Your task to perform on an android device: open chrome privacy settings Image 0: 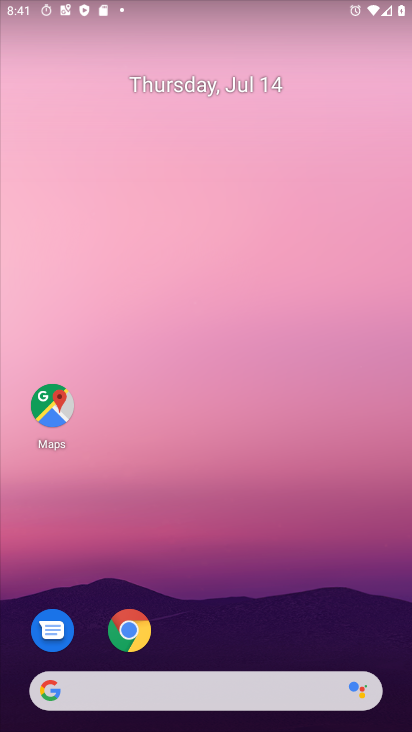
Step 0: drag from (252, 690) to (255, 133)
Your task to perform on an android device: open chrome privacy settings Image 1: 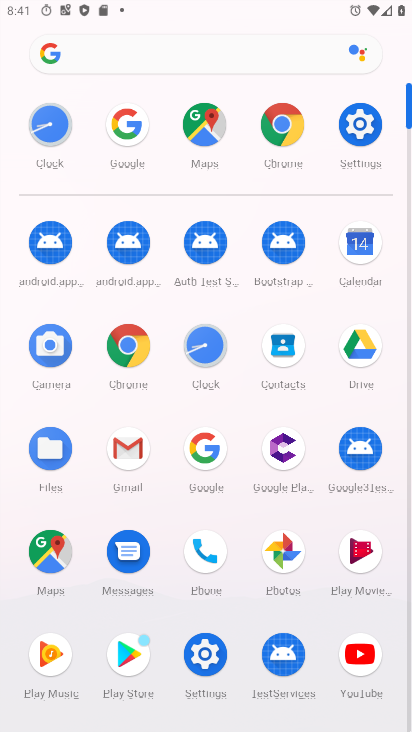
Step 1: click (134, 345)
Your task to perform on an android device: open chrome privacy settings Image 2: 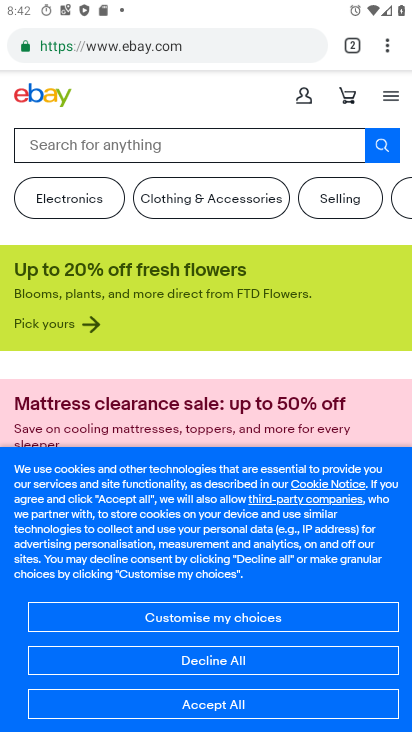
Step 2: click (389, 43)
Your task to perform on an android device: open chrome privacy settings Image 3: 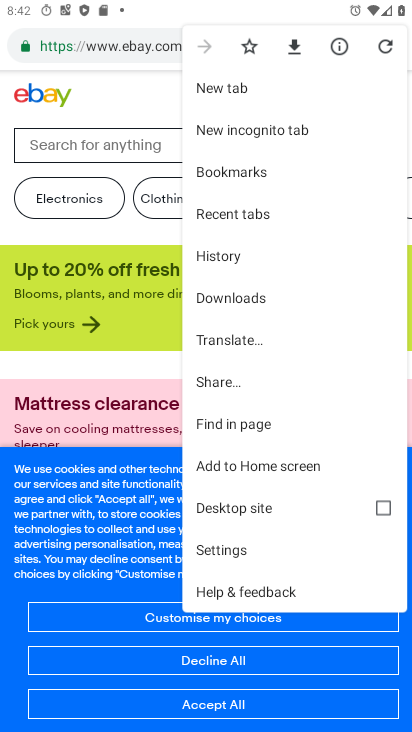
Step 3: click (225, 549)
Your task to perform on an android device: open chrome privacy settings Image 4: 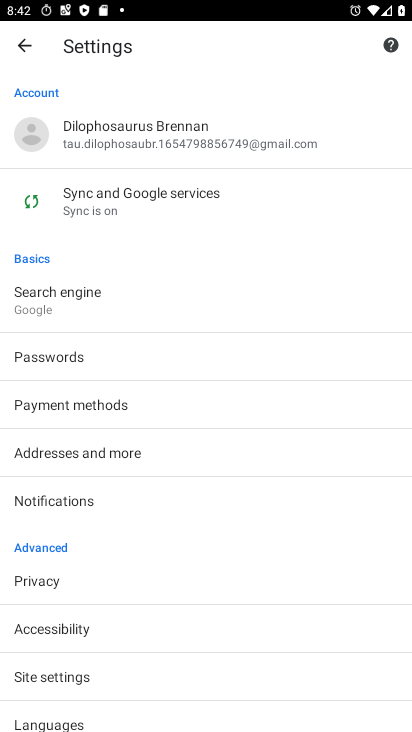
Step 4: click (40, 582)
Your task to perform on an android device: open chrome privacy settings Image 5: 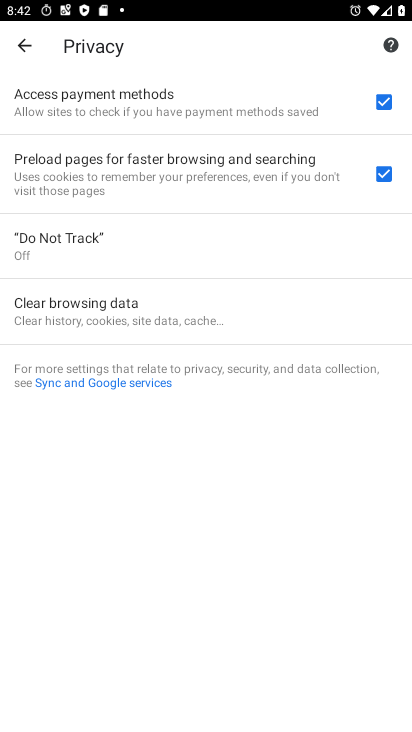
Step 5: task complete